Your task to perform on an android device: turn off wifi Image 0: 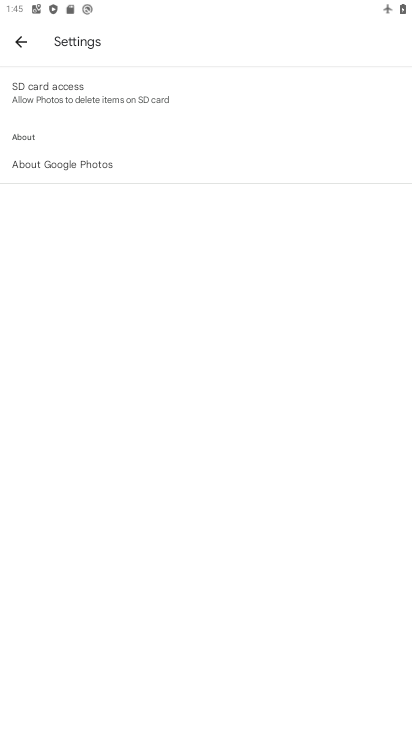
Step 0: drag from (223, 590) to (231, 172)
Your task to perform on an android device: turn off wifi Image 1: 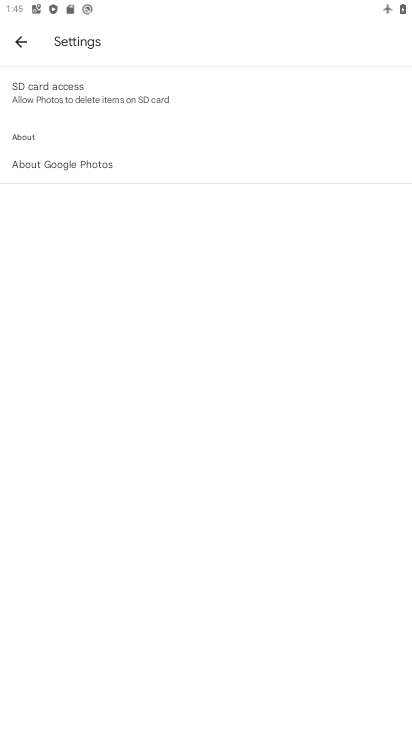
Step 1: press home button
Your task to perform on an android device: turn off wifi Image 2: 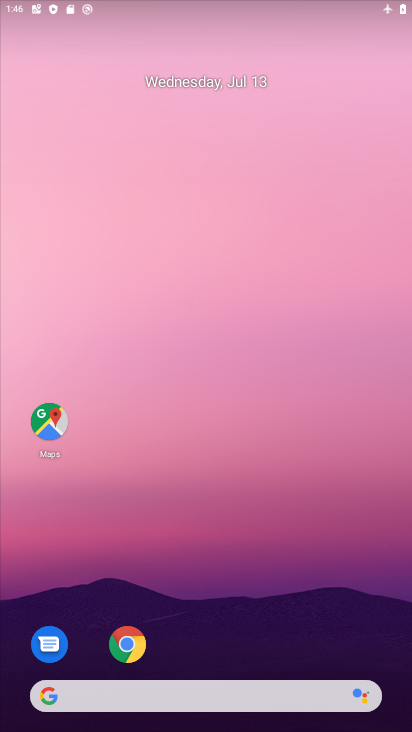
Step 2: drag from (304, 625) to (299, 145)
Your task to perform on an android device: turn off wifi Image 3: 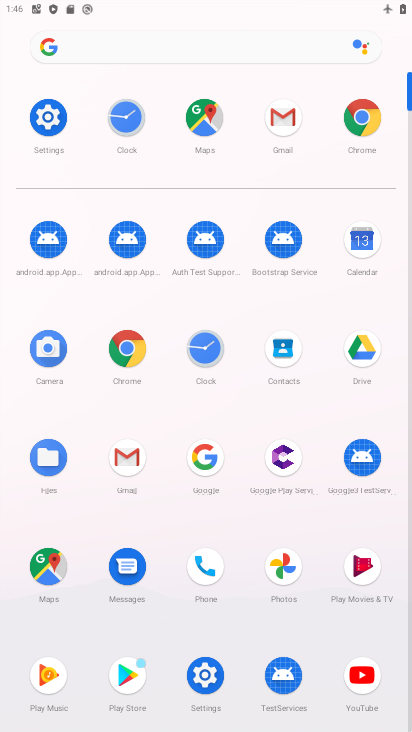
Step 3: click (53, 122)
Your task to perform on an android device: turn off wifi Image 4: 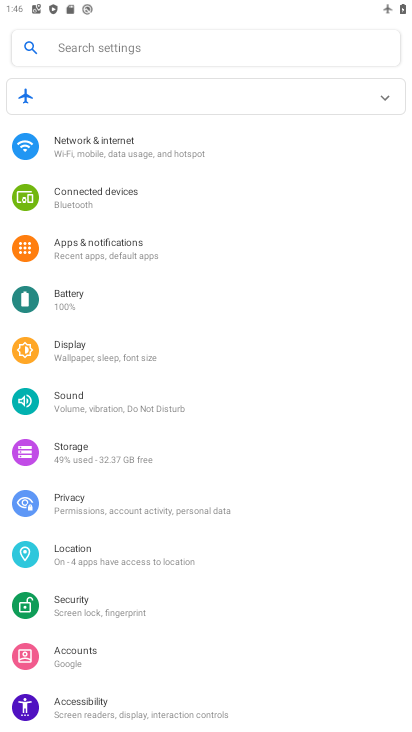
Step 4: click (136, 148)
Your task to perform on an android device: turn off wifi Image 5: 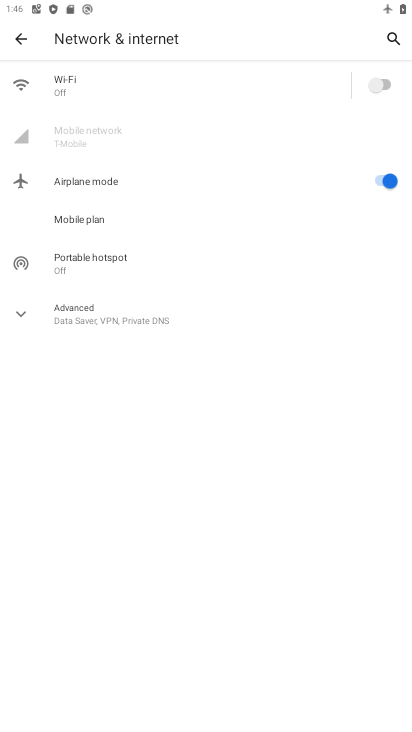
Step 5: task complete